Your task to perform on an android device: turn vacation reply on in the gmail app Image 0: 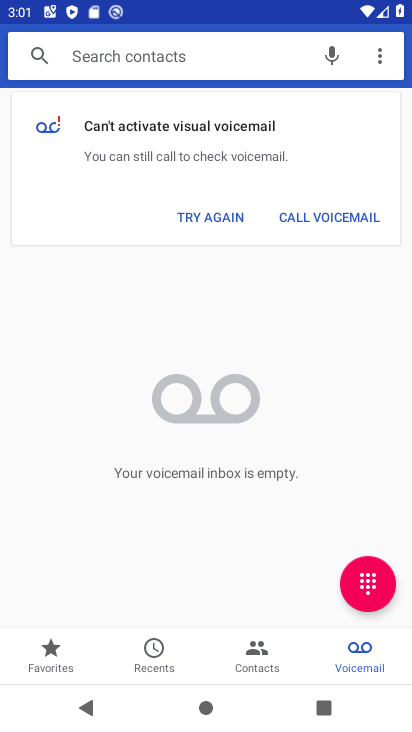
Step 0: press home button
Your task to perform on an android device: turn vacation reply on in the gmail app Image 1: 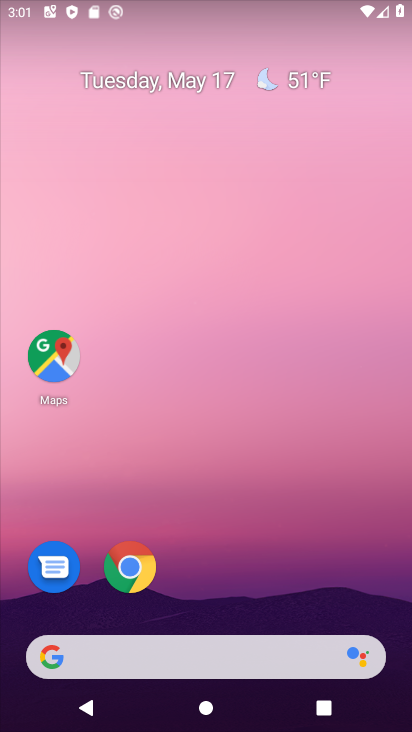
Step 1: drag from (190, 655) to (236, 64)
Your task to perform on an android device: turn vacation reply on in the gmail app Image 2: 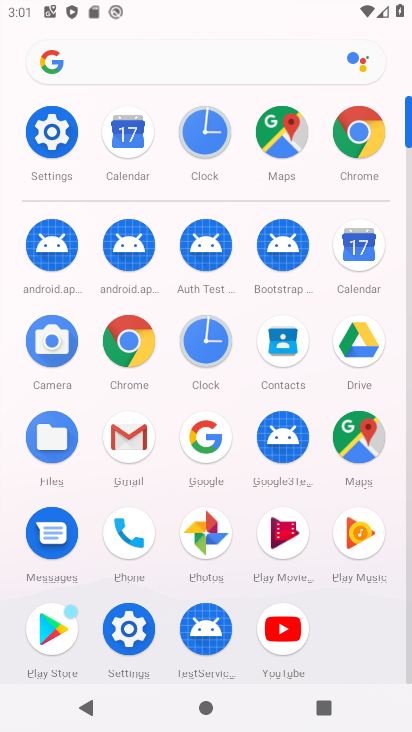
Step 2: click (119, 423)
Your task to perform on an android device: turn vacation reply on in the gmail app Image 3: 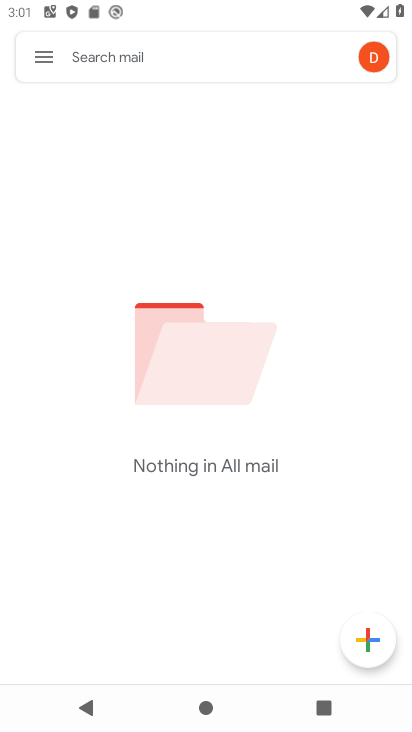
Step 3: click (40, 53)
Your task to perform on an android device: turn vacation reply on in the gmail app Image 4: 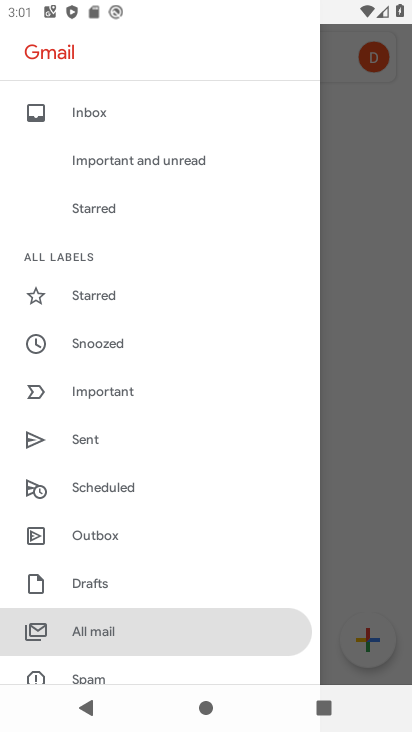
Step 4: drag from (127, 609) to (117, 188)
Your task to perform on an android device: turn vacation reply on in the gmail app Image 5: 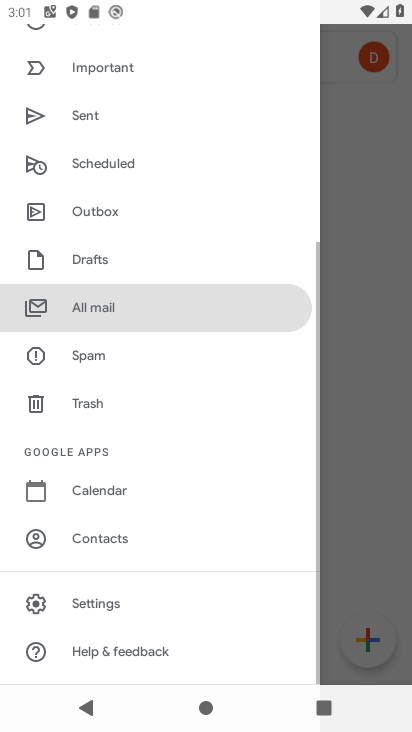
Step 5: click (82, 613)
Your task to perform on an android device: turn vacation reply on in the gmail app Image 6: 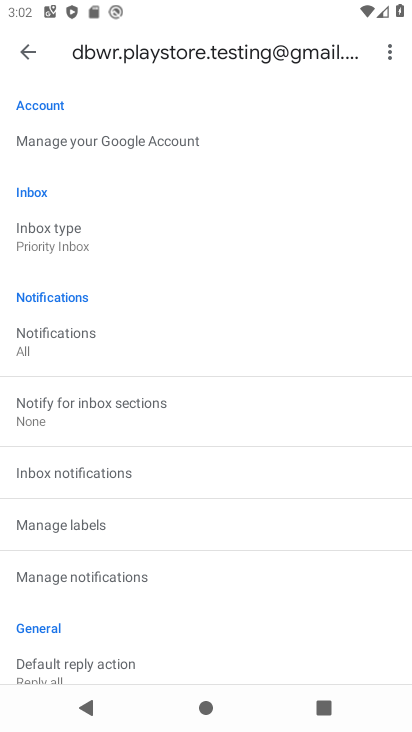
Step 6: drag from (121, 608) to (118, 107)
Your task to perform on an android device: turn vacation reply on in the gmail app Image 7: 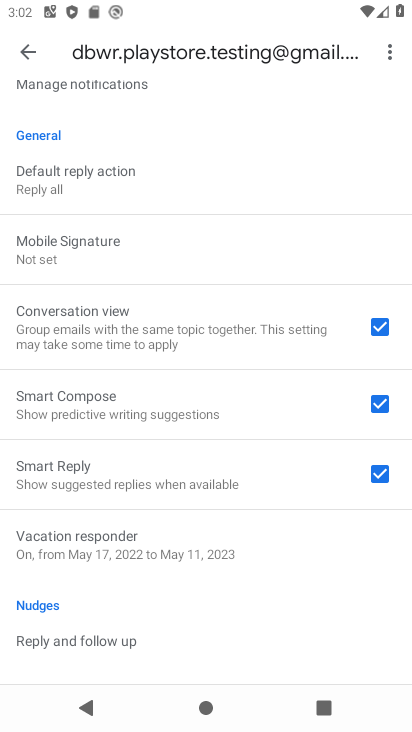
Step 7: click (138, 538)
Your task to perform on an android device: turn vacation reply on in the gmail app Image 8: 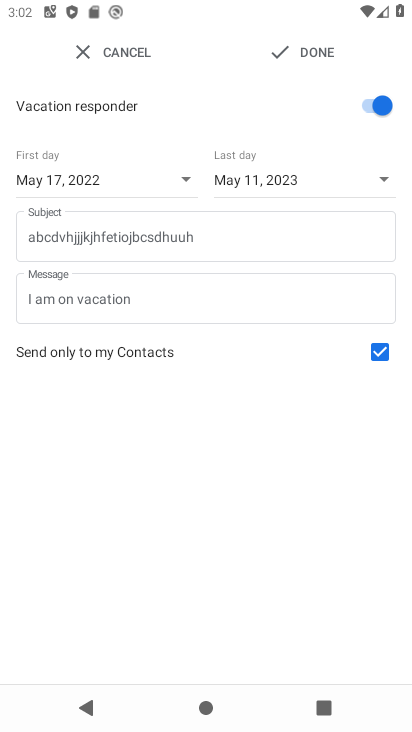
Step 8: click (293, 48)
Your task to perform on an android device: turn vacation reply on in the gmail app Image 9: 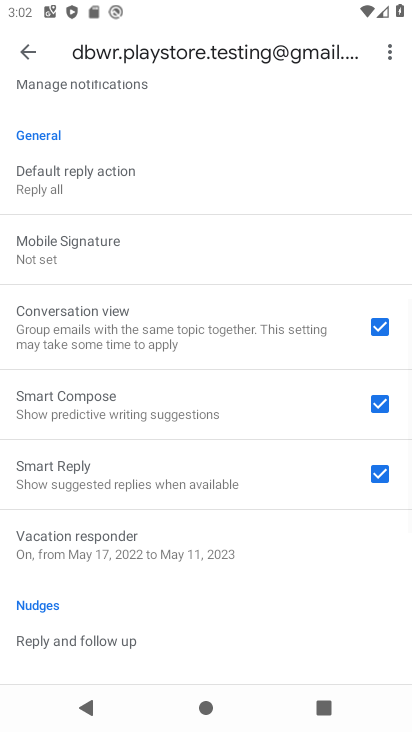
Step 9: task complete